Your task to perform on an android device: Open Wikipedia Image 0: 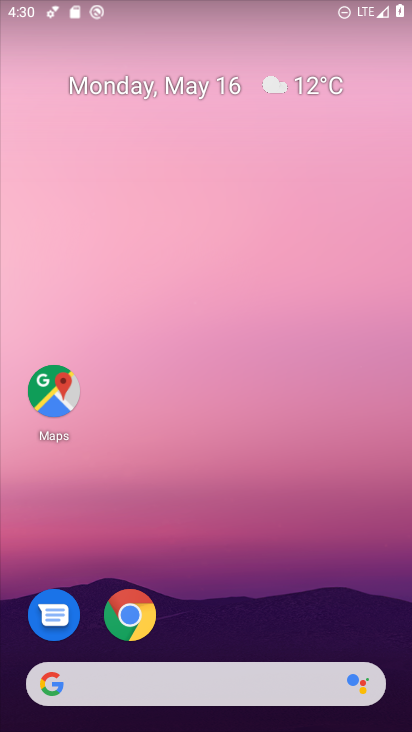
Step 0: click (134, 617)
Your task to perform on an android device: Open Wikipedia Image 1: 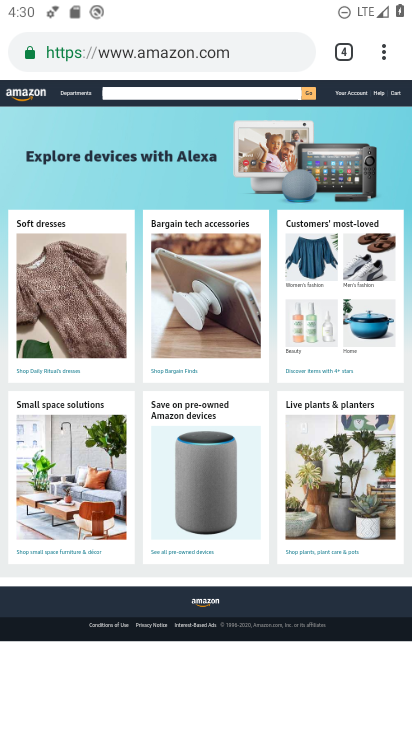
Step 1: click (382, 58)
Your task to perform on an android device: Open Wikipedia Image 2: 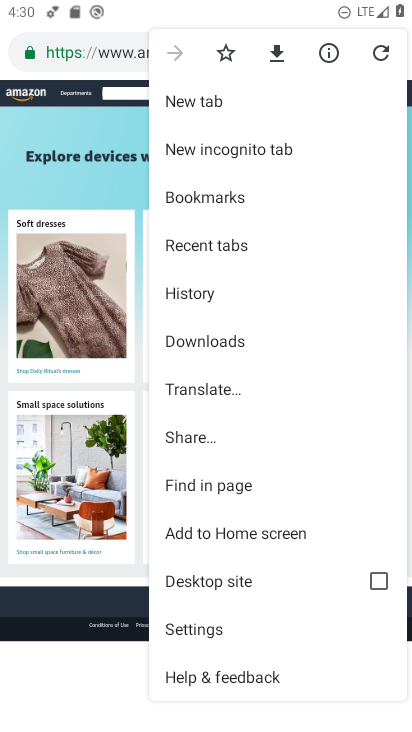
Step 2: click (191, 98)
Your task to perform on an android device: Open Wikipedia Image 3: 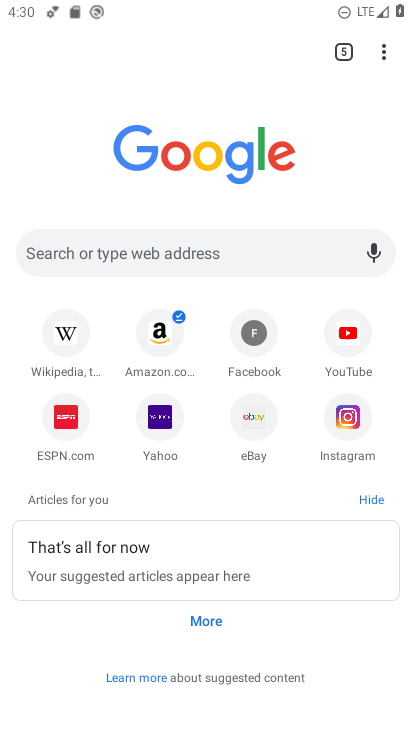
Step 3: click (121, 246)
Your task to perform on an android device: Open Wikipedia Image 4: 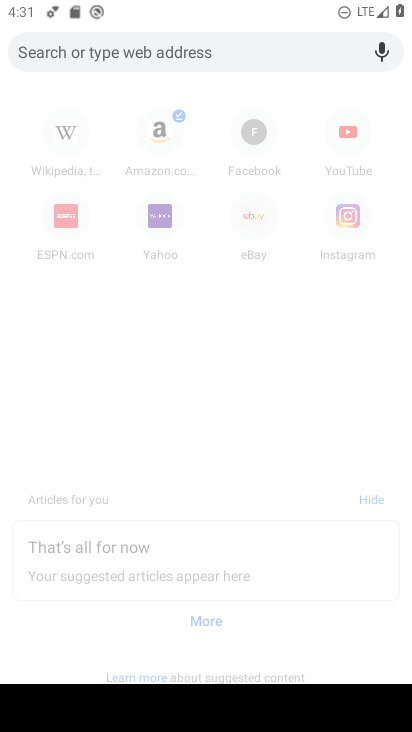
Step 4: type "Wikipedia"
Your task to perform on an android device: Open Wikipedia Image 5: 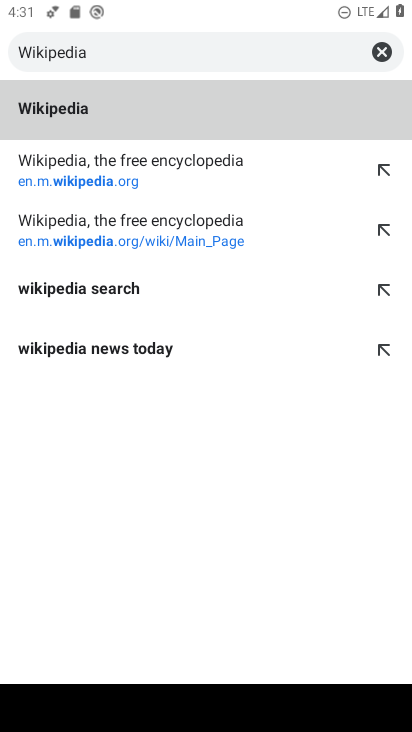
Step 5: click (44, 102)
Your task to perform on an android device: Open Wikipedia Image 6: 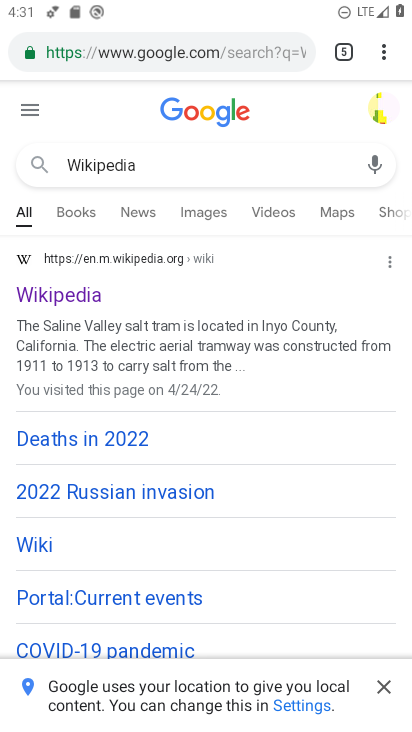
Step 6: click (42, 293)
Your task to perform on an android device: Open Wikipedia Image 7: 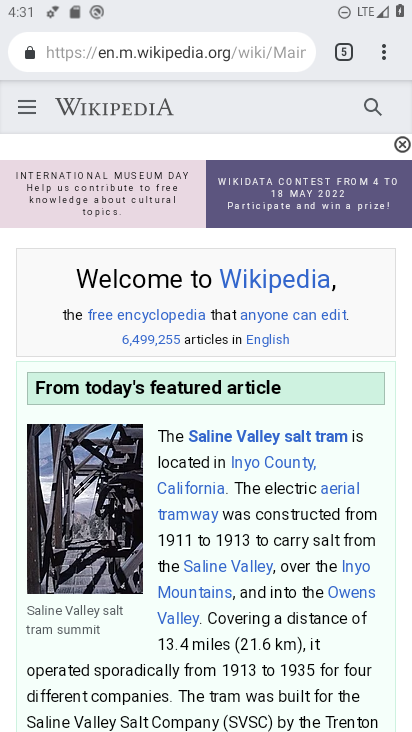
Step 7: task complete